Your task to perform on an android device: change the clock display to analog Image 0: 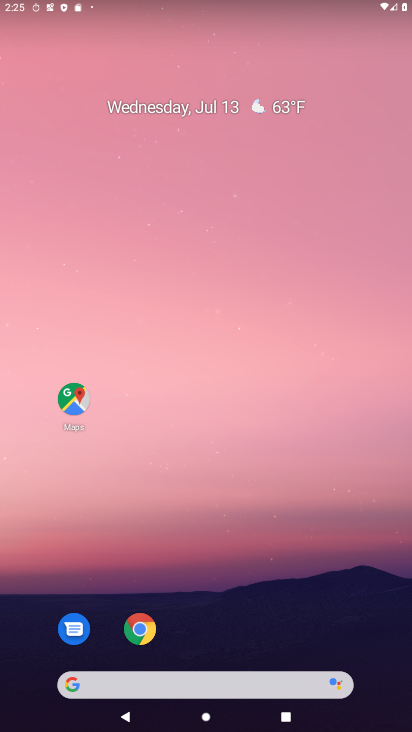
Step 0: drag from (234, 645) to (207, 210)
Your task to perform on an android device: change the clock display to analog Image 1: 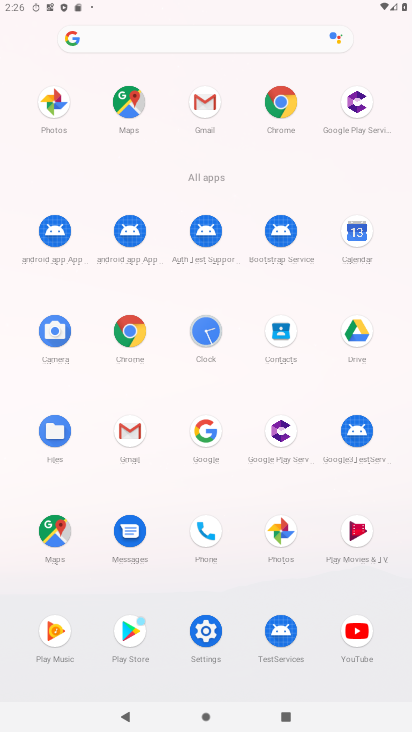
Step 1: click (218, 333)
Your task to perform on an android device: change the clock display to analog Image 2: 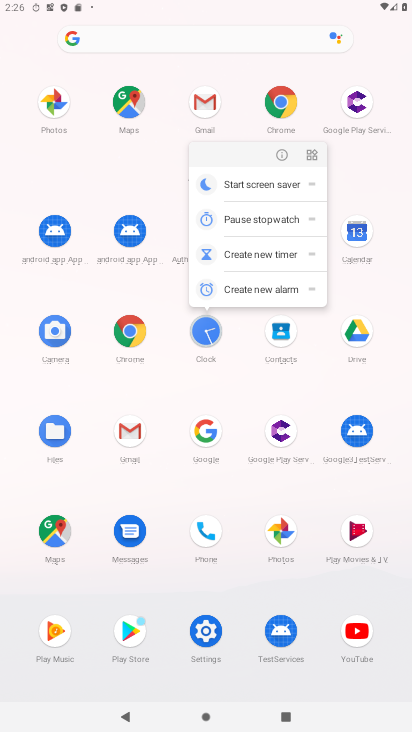
Step 2: click (275, 150)
Your task to perform on an android device: change the clock display to analog Image 3: 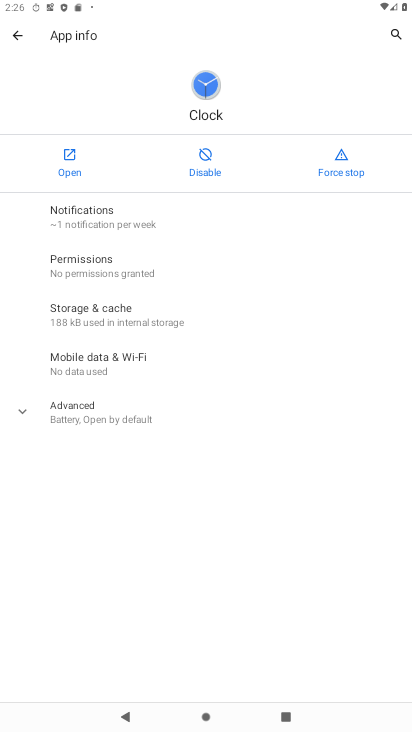
Step 3: drag from (182, 503) to (191, 211)
Your task to perform on an android device: change the clock display to analog Image 4: 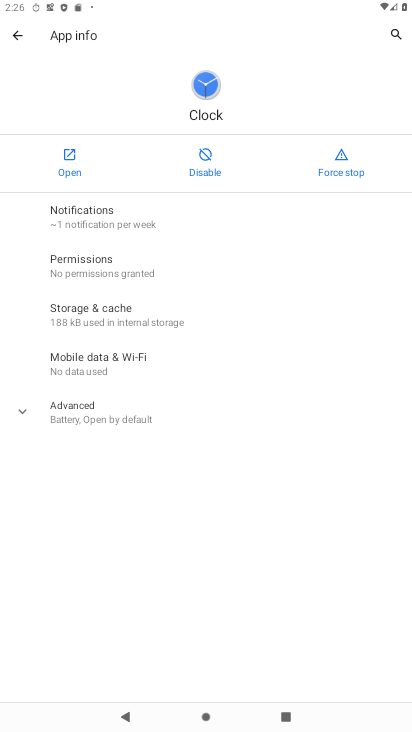
Step 4: click (59, 176)
Your task to perform on an android device: change the clock display to analog Image 5: 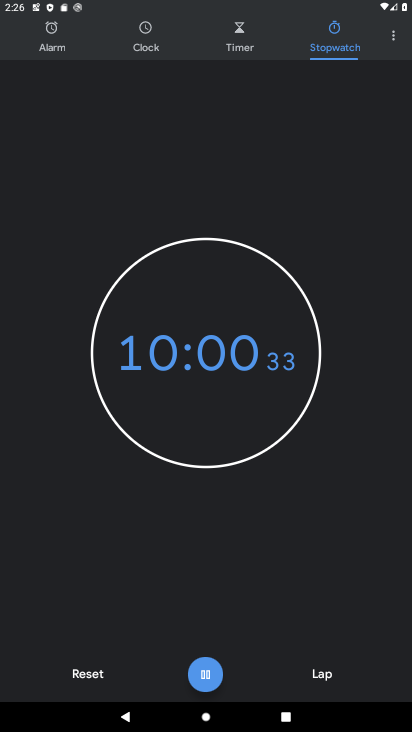
Step 5: drag from (249, 623) to (245, 422)
Your task to perform on an android device: change the clock display to analog Image 6: 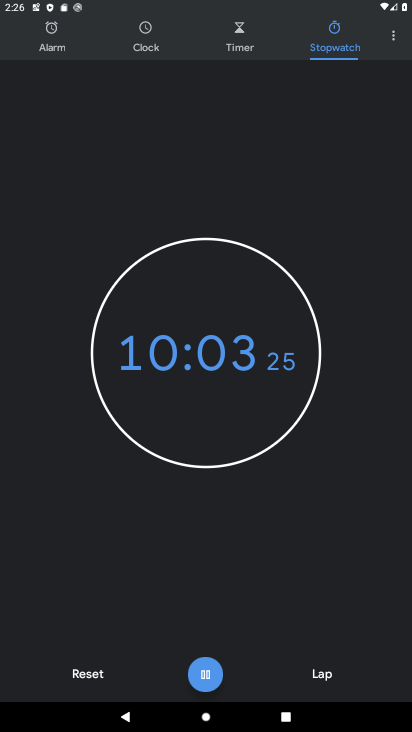
Step 6: click (392, 32)
Your task to perform on an android device: change the clock display to analog Image 7: 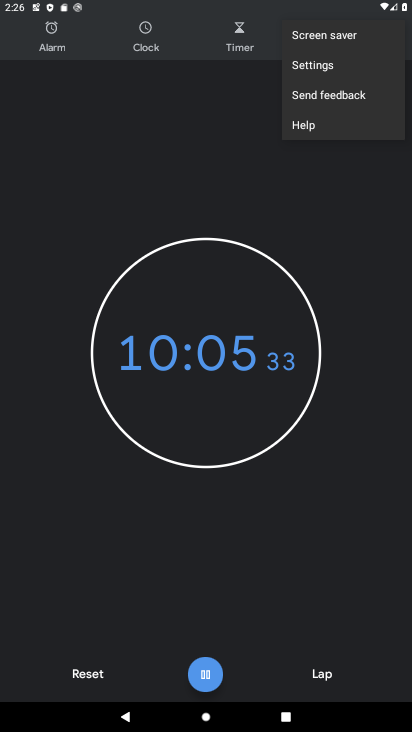
Step 7: click (334, 67)
Your task to perform on an android device: change the clock display to analog Image 8: 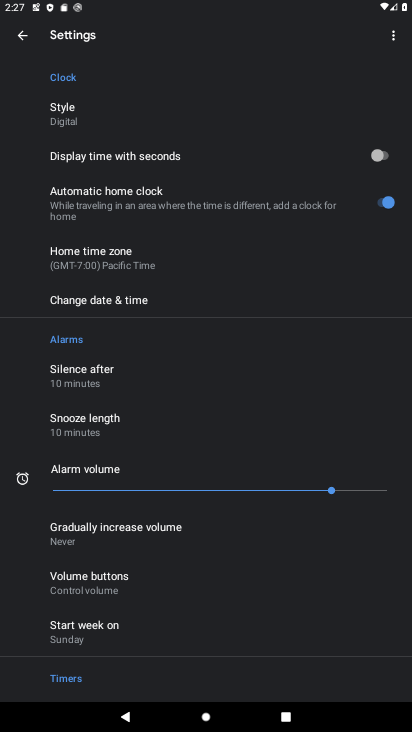
Step 8: click (110, 116)
Your task to perform on an android device: change the clock display to analog Image 9: 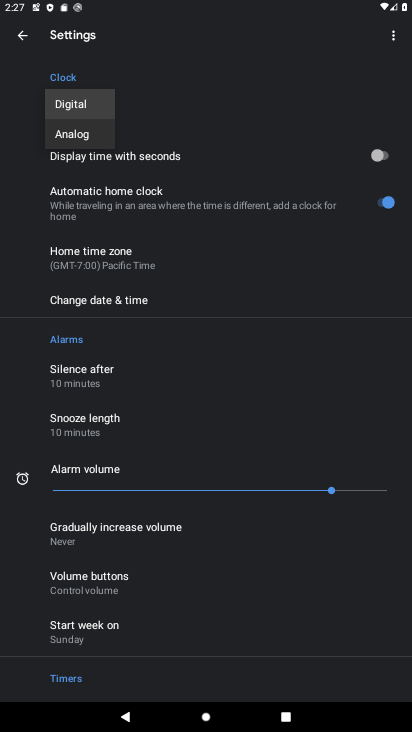
Step 9: click (73, 133)
Your task to perform on an android device: change the clock display to analog Image 10: 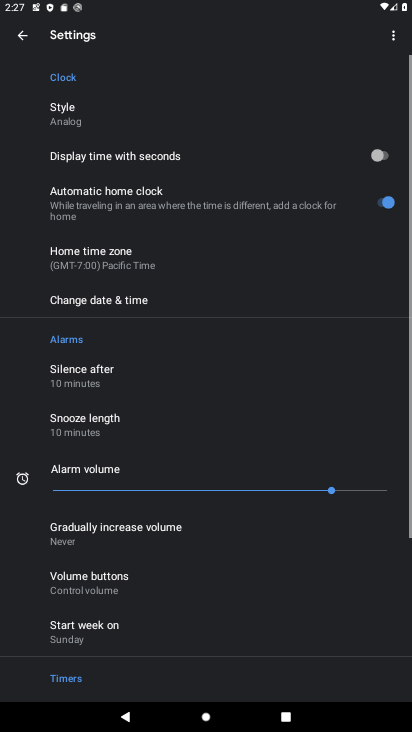
Step 10: task complete